Your task to perform on an android device: see creations saved in the google photos Image 0: 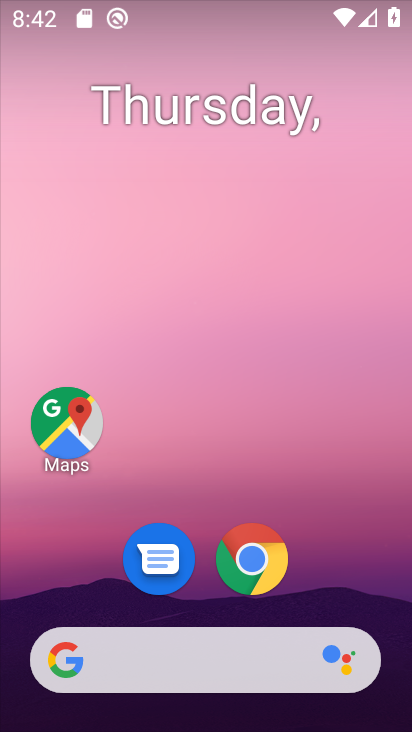
Step 0: drag from (65, 588) to (277, 40)
Your task to perform on an android device: see creations saved in the google photos Image 1: 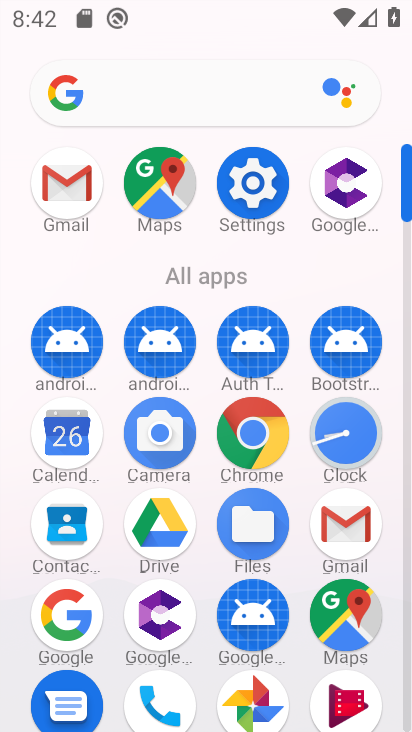
Step 1: drag from (86, 626) to (230, 256)
Your task to perform on an android device: see creations saved in the google photos Image 2: 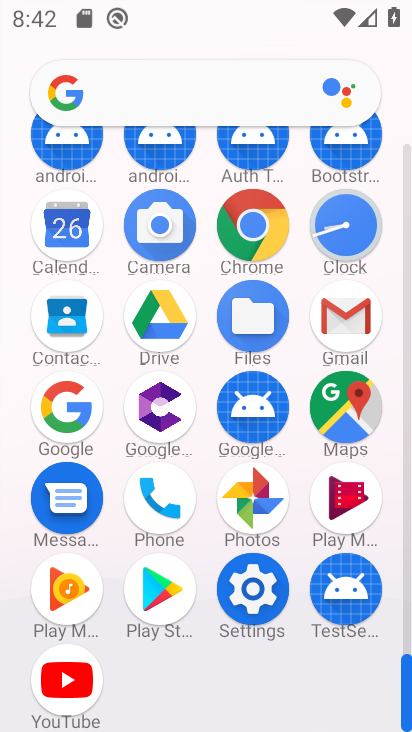
Step 2: click (270, 496)
Your task to perform on an android device: see creations saved in the google photos Image 3: 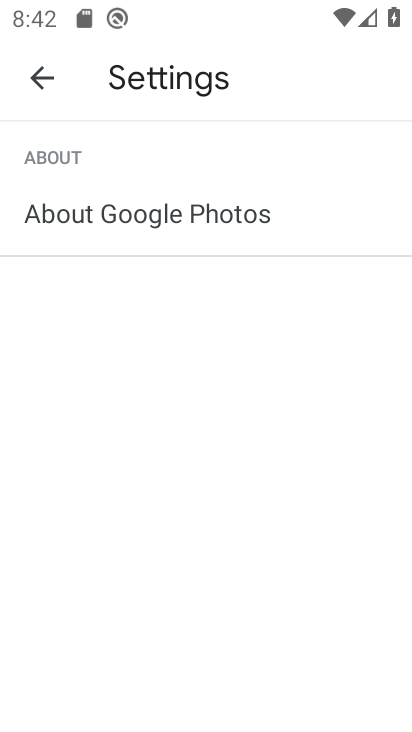
Step 3: press back button
Your task to perform on an android device: see creations saved in the google photos Image 4: 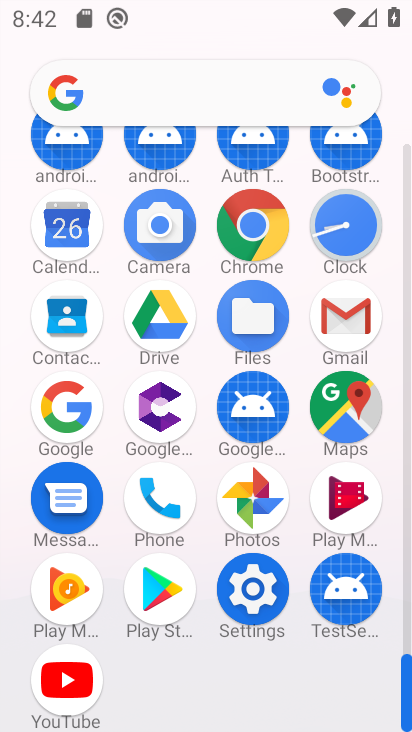
Step 4: click (265, 494)
Your task to perform on an android device: see creations saved in the google photos Image 5: 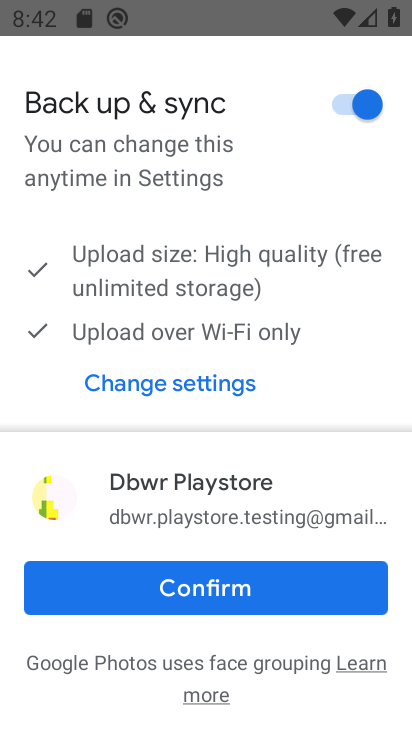
Step 5: click (255, 588)
Your task to perform on an android device: see creations saved in the google photos Image 6: 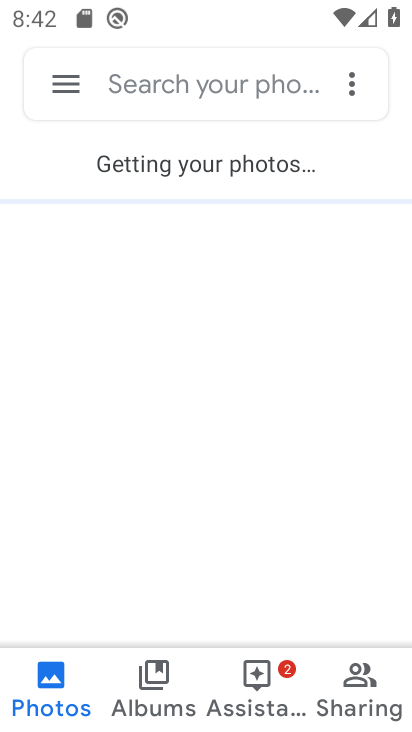
Step 6: click (184, 100)
Your task to perform on an android device: see creations saved in the google photos Image 7: 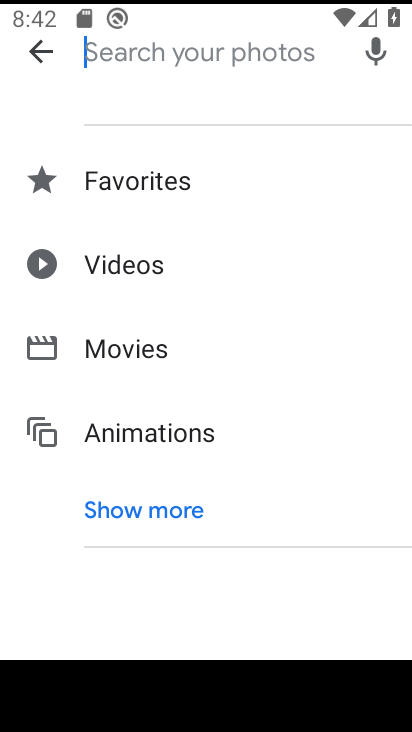
Step 7: click (120, 515)
Your task to perform on an android device: see creations saved in the google photos Image 8: 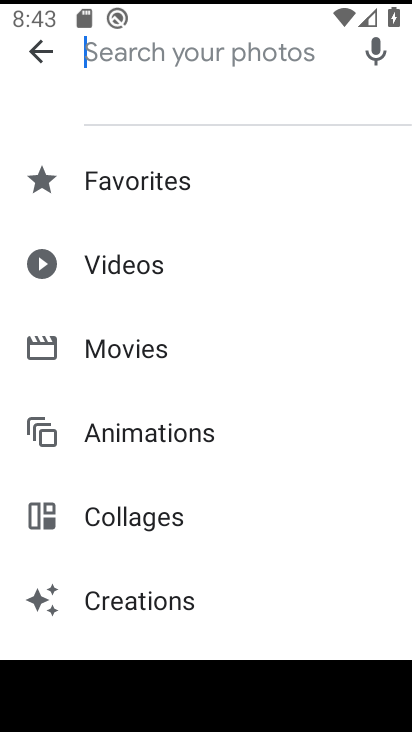
Step 8: click (184, 609)
Your task to perform on an android device: see creations saved in the google photos Image 9: 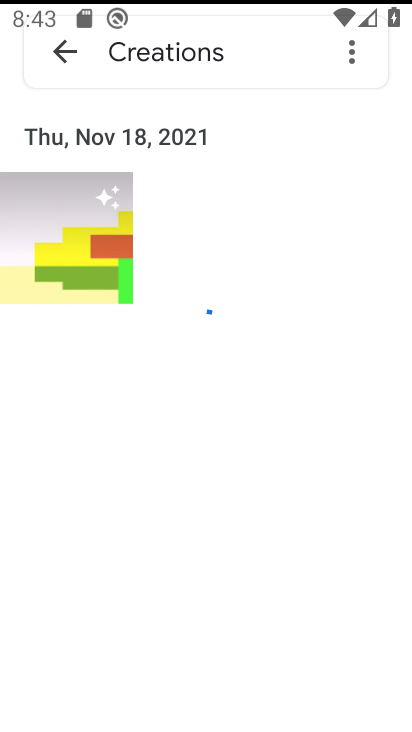
Step 9: task complete